Your task to perform on an android device: turn on the 24-hour format for clock Image 0: 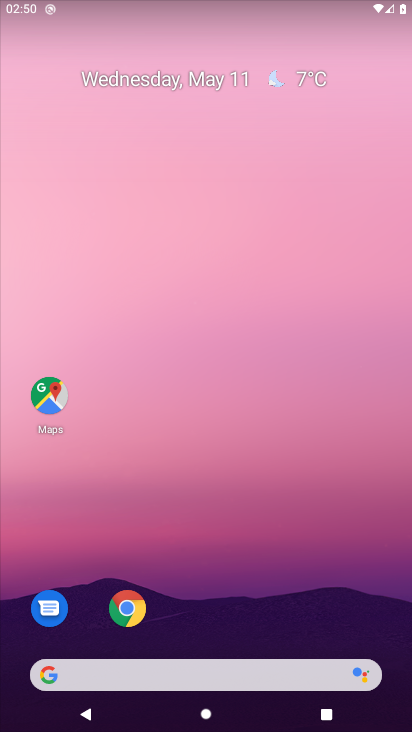
Step 0: drag from (214, 640) to (209, 83)
Your task to perform on an android device: turn on the 24-hour format for clock Image 1: 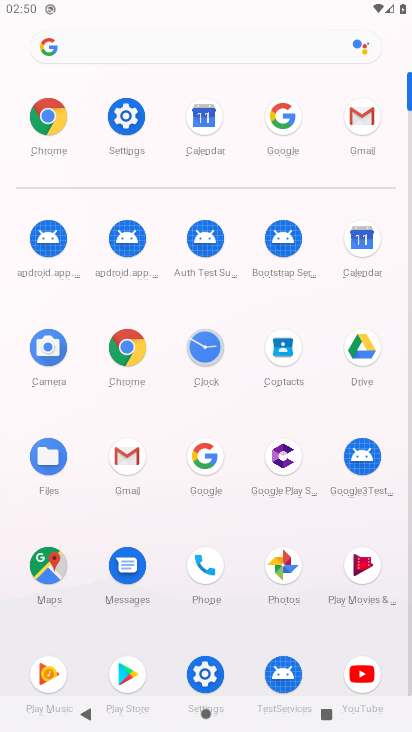
Step 1: click (204, 345)
Your task to perform on an android device: turn on the 24-hour format for clock Image 2: 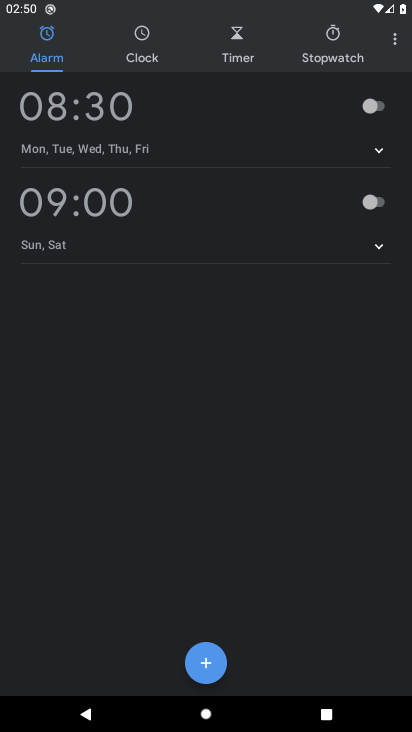
Step 2: click (391, 38)
Your task to perform on an android device: turn on the 24-hour format for clock Image 3: 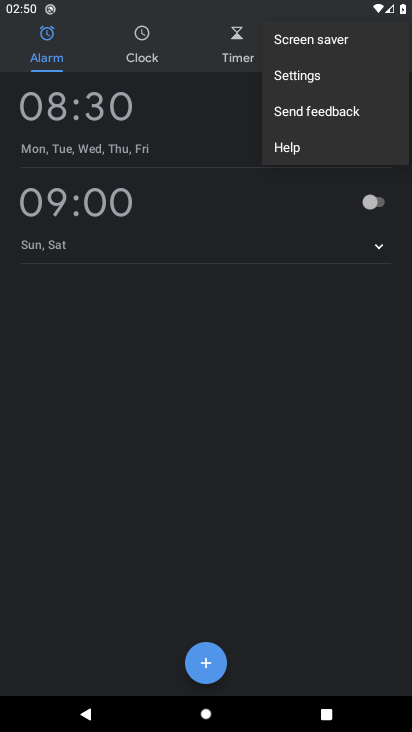
Step 3: click (320, 73)
Your task to perform on an android device: turn on the 24-hour format for clock Image 4: 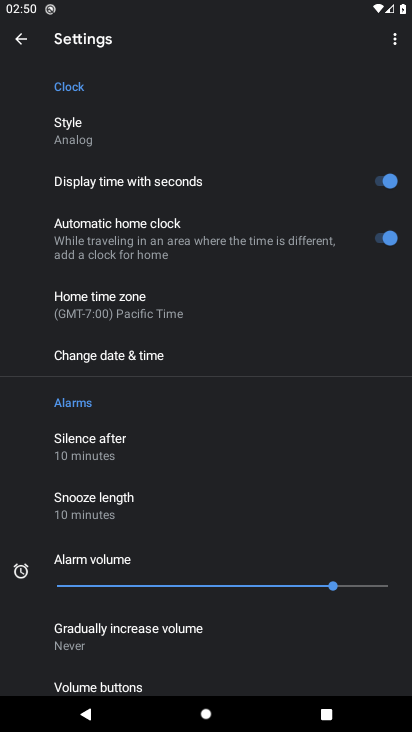
Step 4: click (181, 353)
Your task to perform on an android device: turn on the 24-hour format for clock Image 5: 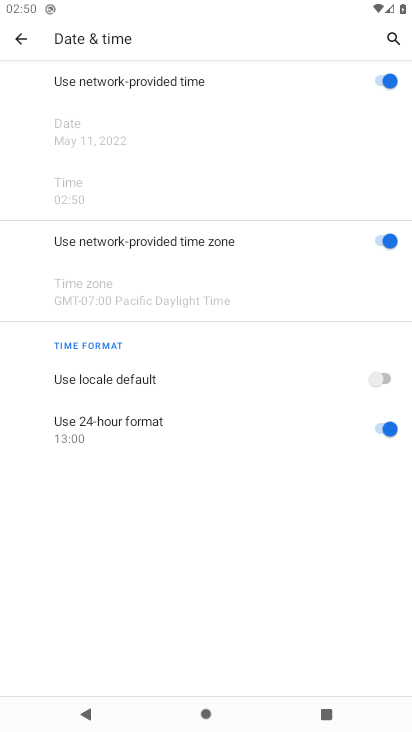
Step 5: task complete